Your task to perform on an android device: add a contact Image 0: 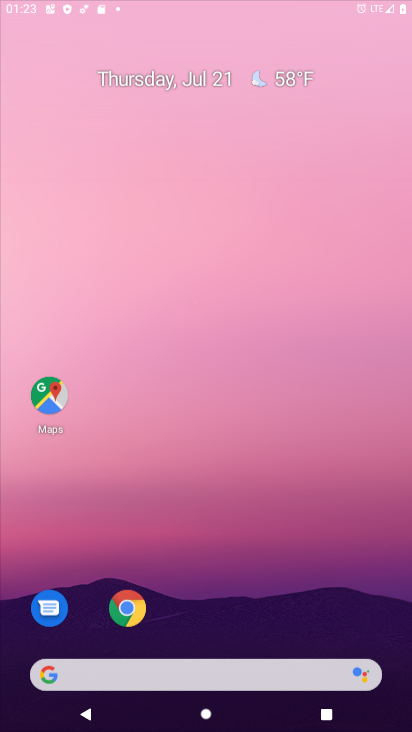
Step 0: press home button
Your task to perform on an android device: add a contact Image 1: 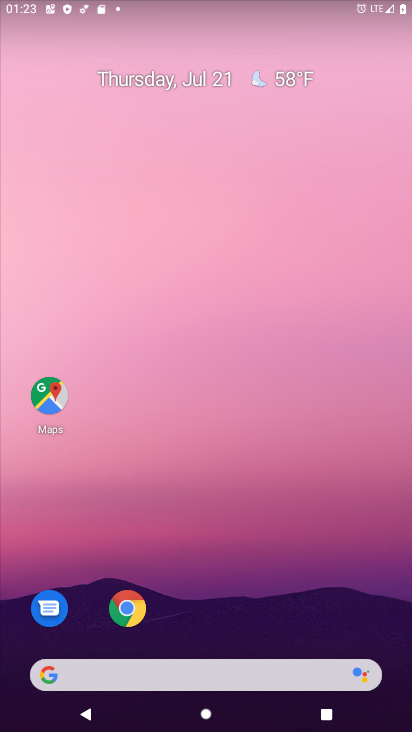
Step 1: drag from (208, 630) to (217, 5)
Your task to perform on an android device: add a contact Image 2: 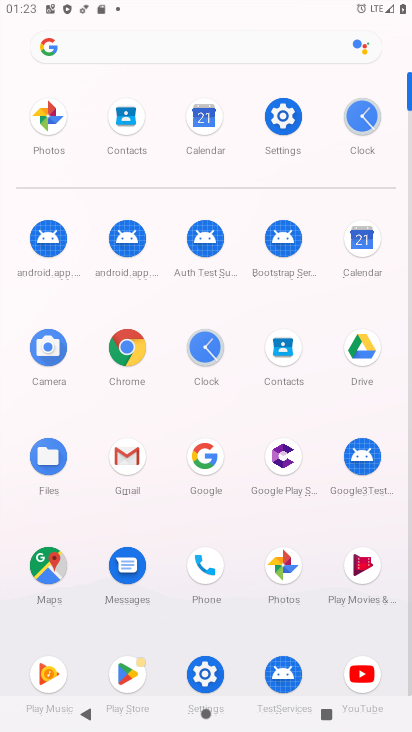
Step 2: click (281, 342)
Your task to perform on an android device: add a contact Image 3: 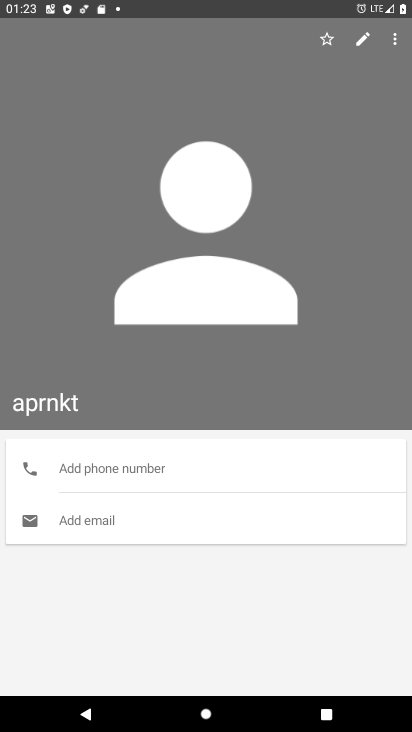
Step 3: press back button
Your task to perform on an android device: add a contact Image 4: 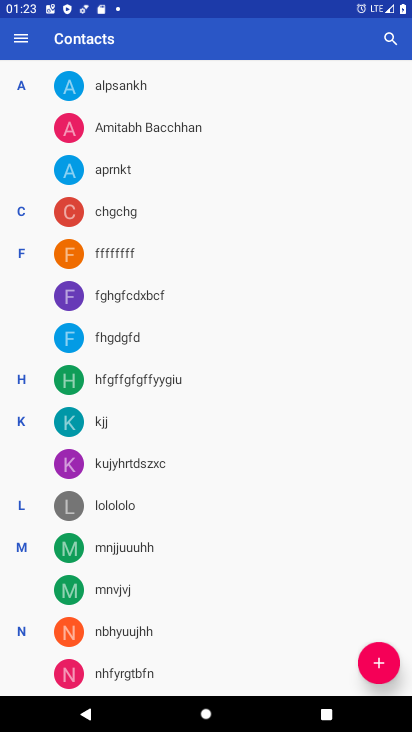
Step 4: click (378, 663)
Your task to perform on an android device: add a contact Image 5: 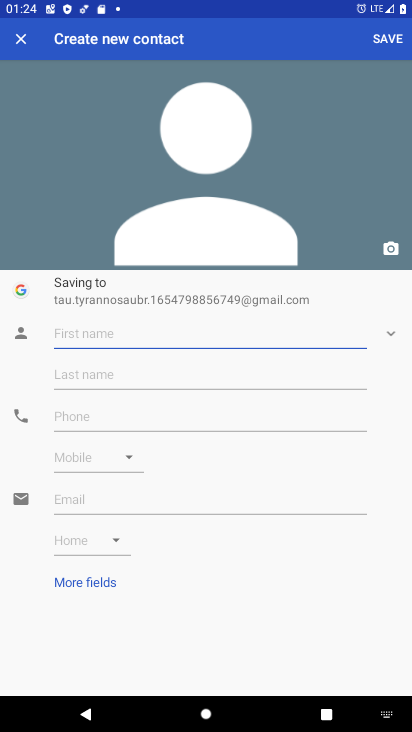
Step 5: type "ankit"
Your task to perform on an android device: add a contact Image 6: 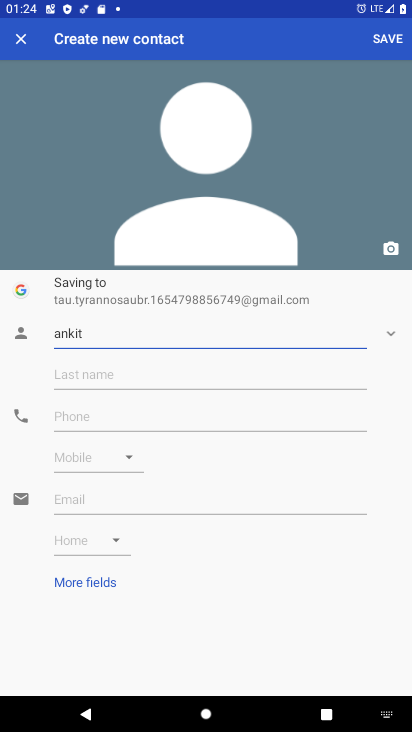
Step 6: click (386, 24)
Your task to perform on an android device: add a contact Image 7: 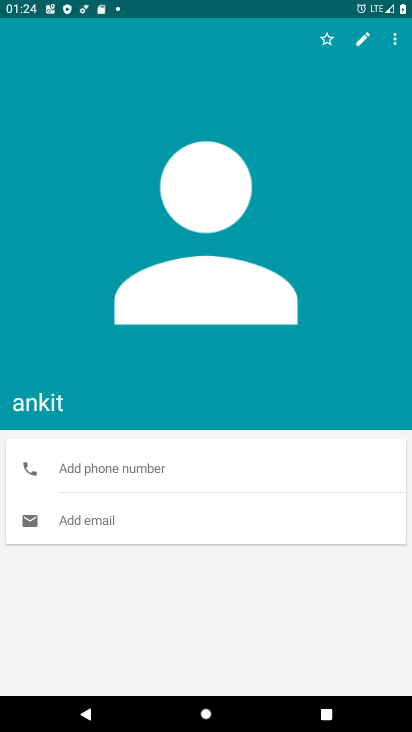
Step 7: task complete